Your task to perform on an android device: Open battery settings Image 0: 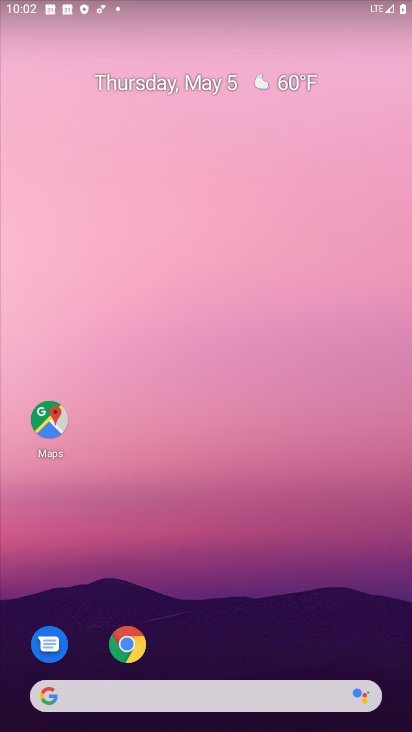
Step 0: drag from (190, 549) to (343, 22)
Your task to perform on an android device: Open battery settings Image 1: 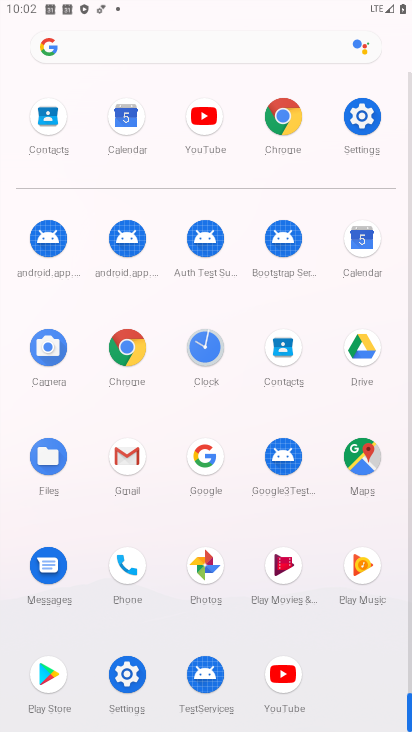
Step 1: click (360, 124)
Your task to perform on an android device: Open battery settings Image 2: 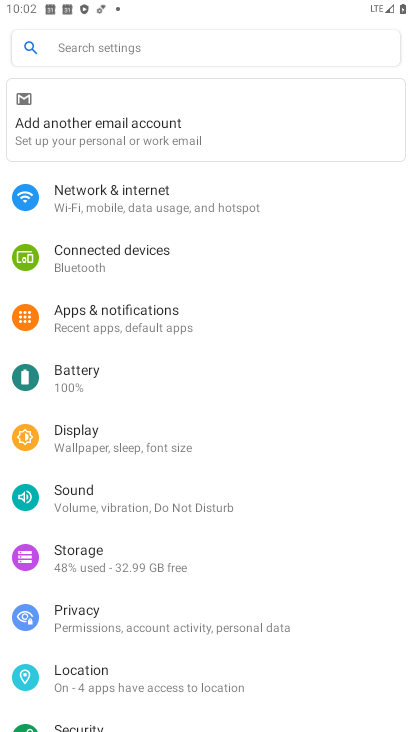
Step 2: click (97, 385)
Your task to perform on an android device: Open battery settings Image 3: 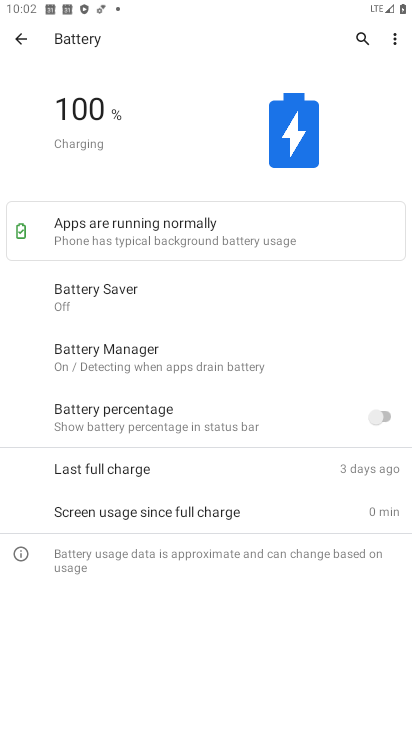
Step 3: click (394, 38)
Your task to perform on an android device: Open battery settings Image 4: 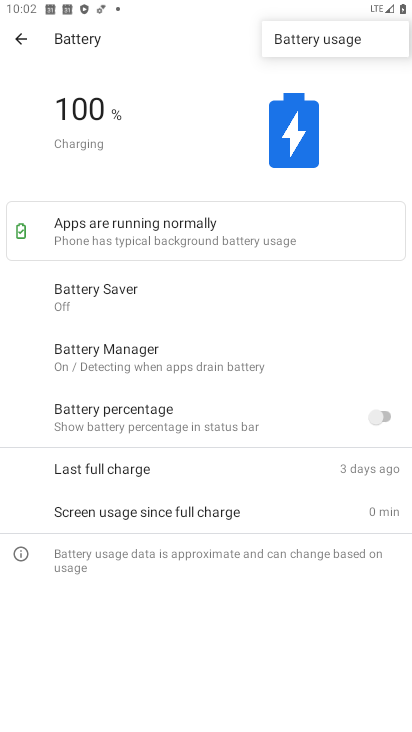
Step 4: click (332, 118)
Your task to perform on an android device: Open battery settings Image 5: 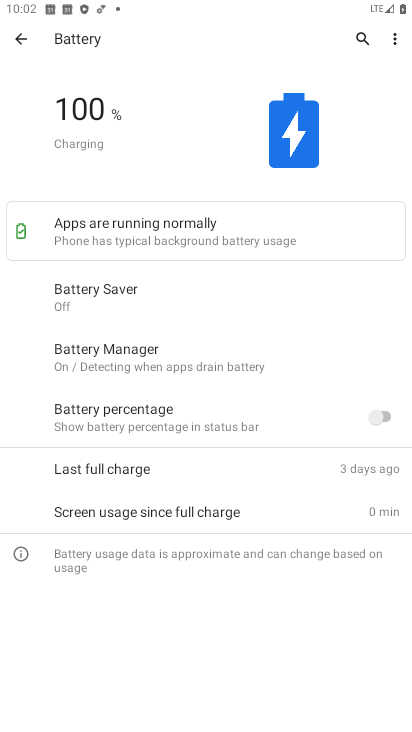
Step 5: click (396, 35)
Your task to perform on an android device: Open battery settings Image 6: 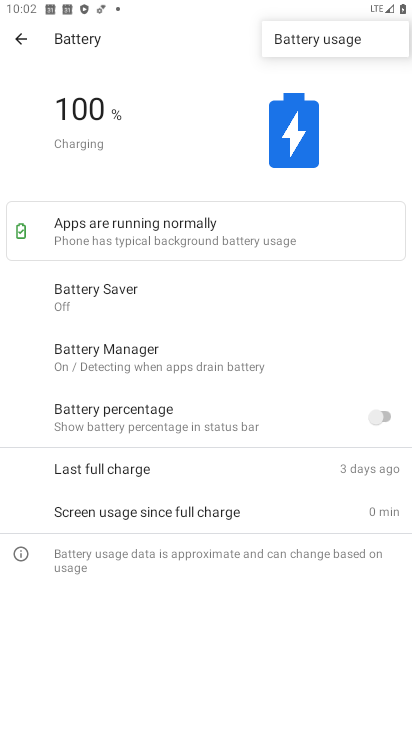
Step 6: click (307, 132)
Your task to perform on an android device: Open battery settings Image 7: 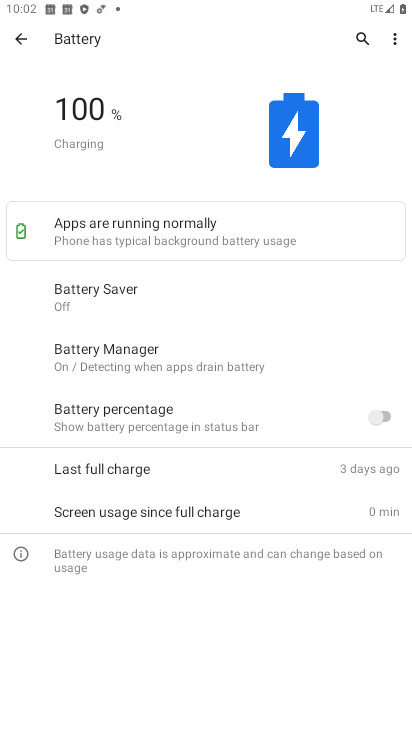
Step 7: task complete